Your task to perform on an android device: change text size in settings app Image 0: 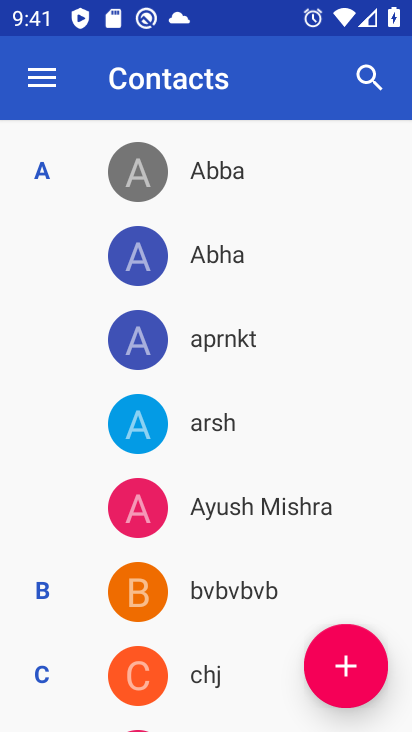
Step 0: press home button
Your task to perform on an android device: change text size in settings app Image 1: 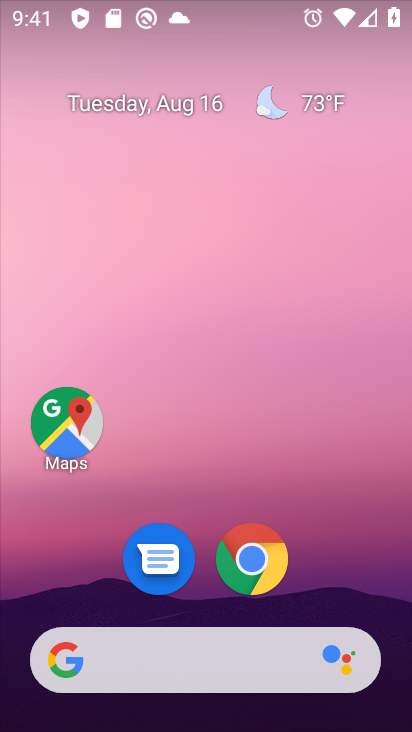
Step 1: drag from (185, 684) to (299, 93)
Your task to perform on an android device: change text size in settings app Image 2: 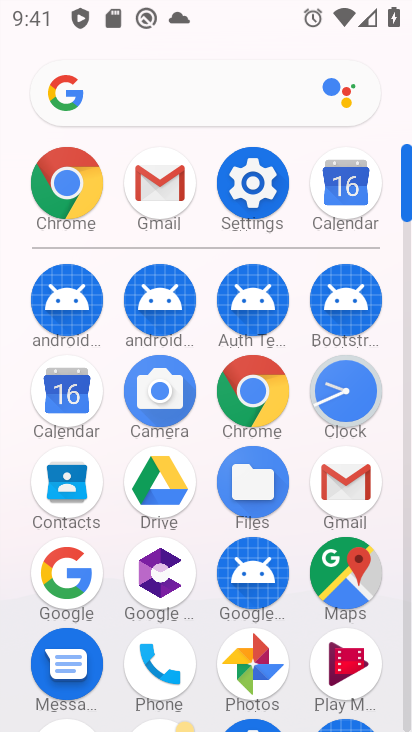
Step 2: click (252, 182)
Your task to perform on an android device: change text size in settings app Image 3: 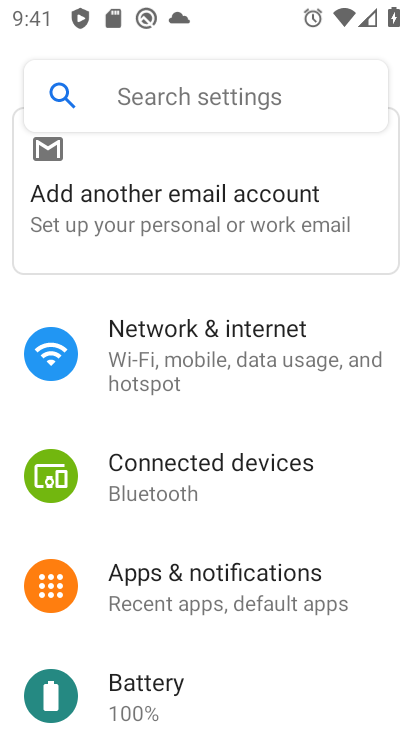
Step 3: drag from (169, 661) to (264, 474)
Your task to perform on an android device: change text size in settings app Image 4: 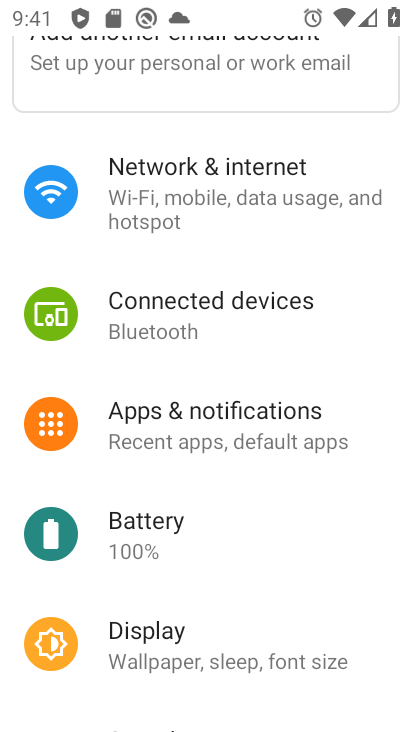
Step 4: drag from (204, 583) to (259, 435)
Your task to perform on an android device: change text size in settings app Image 5: 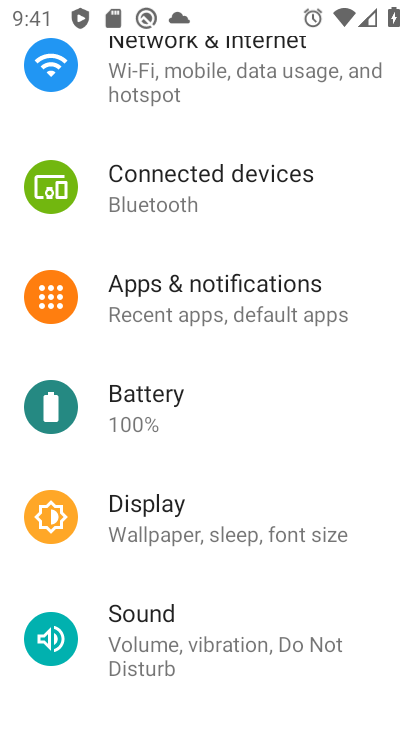
Step 5: drag from (202, 567) to (268, 467)
Your task to perform on an android device: change text size in settings app Image 6: 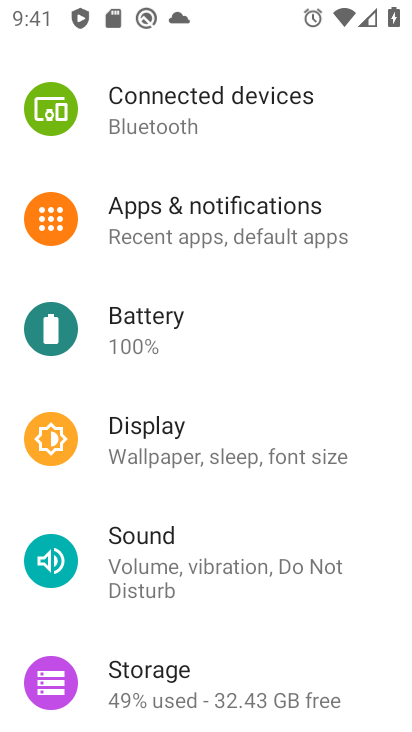
Step 6: drag from (157, 626) to (228, 459)
Your task to perform on an android device: change text size in settings app Image 7: 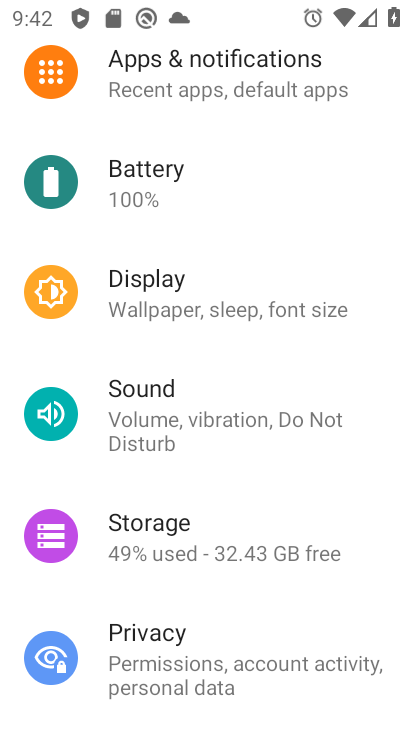
Step 7: drag from (161, 597) to (235, 488)
Your task to perform on an android device: change text size in settings app Image 8: 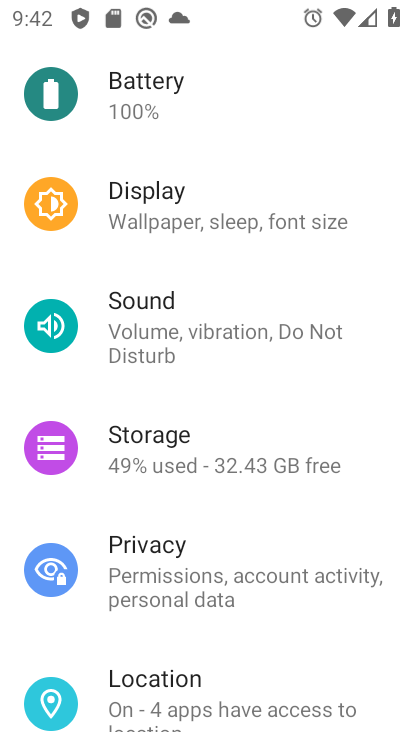
Step 8: drag from (152, 650) to (252, 491)
Your task to perform on an android device: change text size in settings app Image 9: 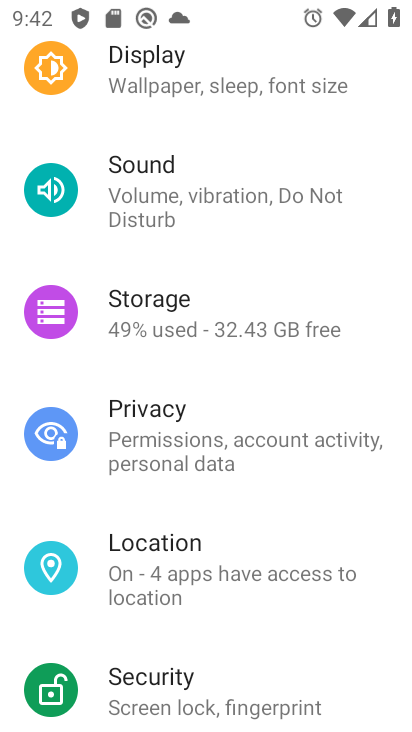
Step 9: drag from (145, 638) to (248, 505)
Your task to perform on an android device: change text size in settings app Image 10: 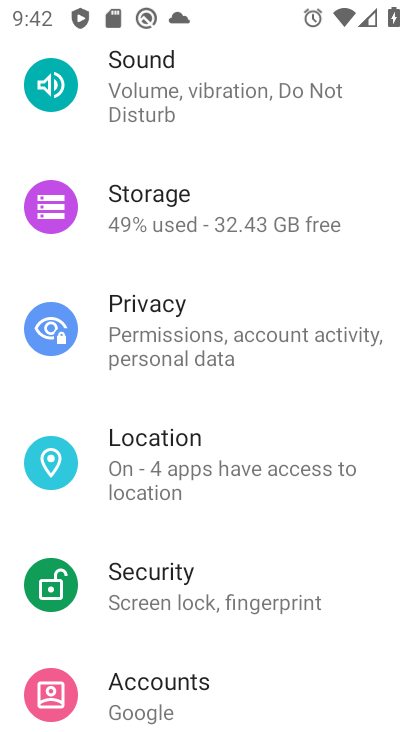
Step 10: drag from (120, 667) to (215, 488)
Your task to perform on an android device: change text size in settings app Image 11: 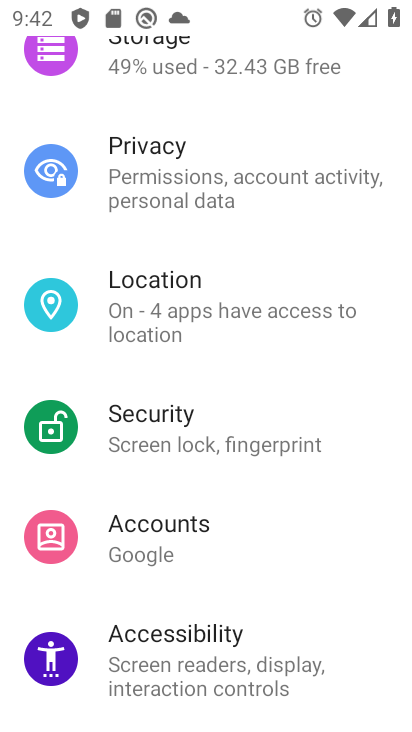
Step 11: click (156, 630)
Your task to perform on an android device: change text size in settings app Image 12: 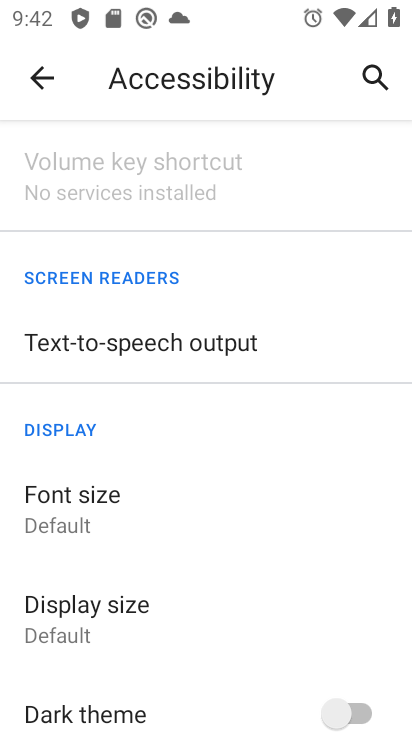
Step 12: click (103, 505)
Your task to perform on an android device: change text size in settings app Image 13: 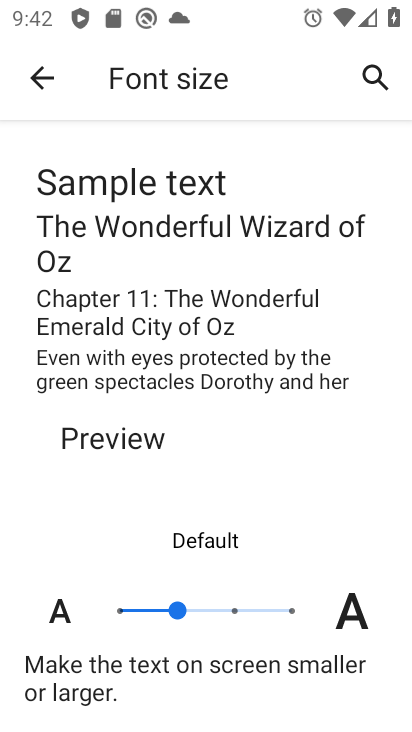
Step 13: click (114, 607)
Your task to perform on an android device: change text size in settings app Image 14: 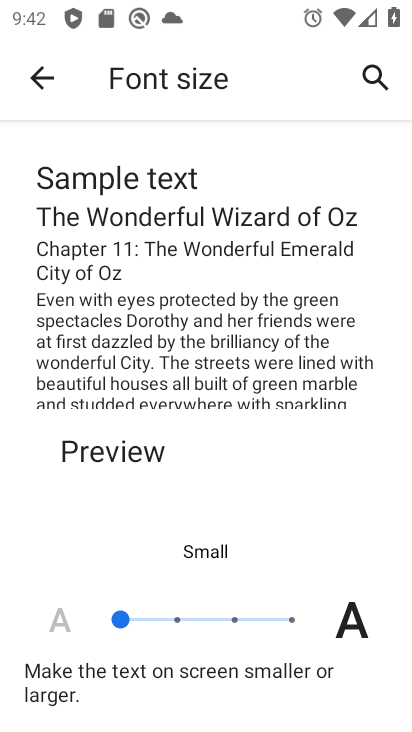
Step 14: task complete